Your task to perform on an android device: change alarm snooze length Image 0: 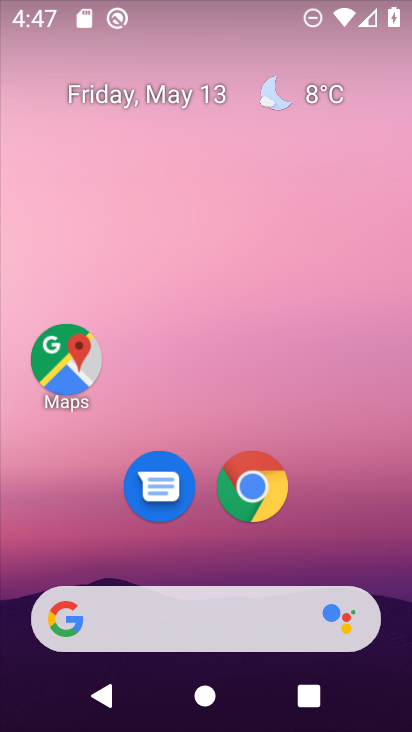
Step 0: drag from (386, 519) to (262, 185)
Your task to perform on an android device: change alarm snooze length Image 1: 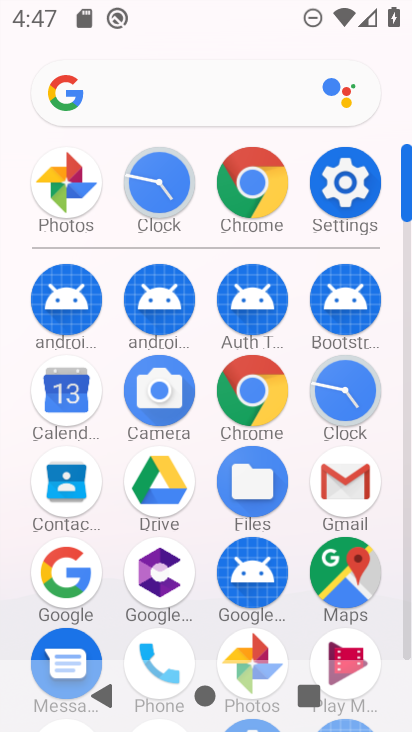
Step 1: click (346, 387)
Your task to perform on an android device: change alarm snooze length Image 2: 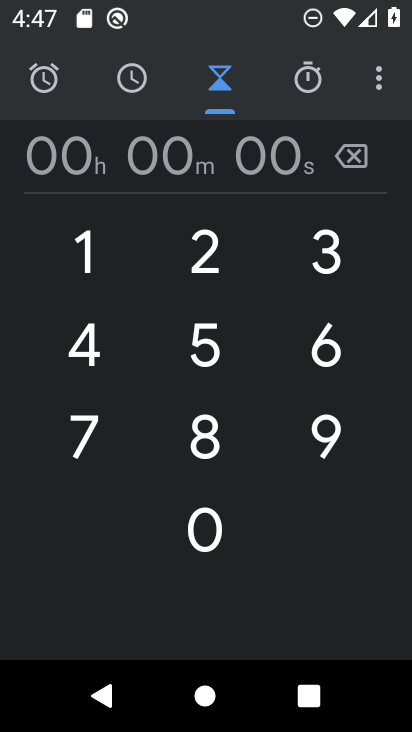
Step 2: click (394, 98)
Your task to perform on an android device: change alarm snooze length Image 3: 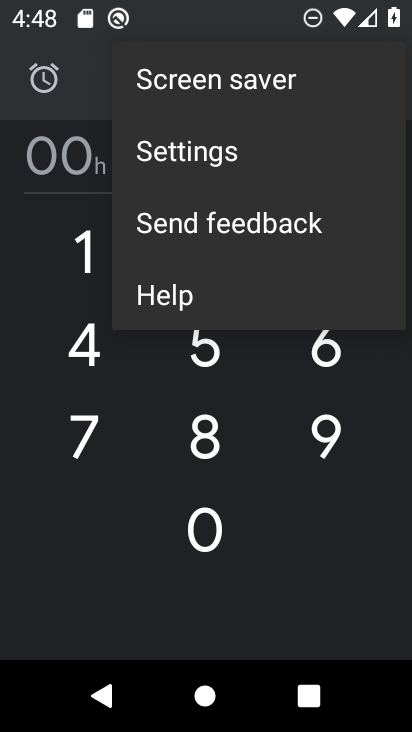
Step 3: click (331, 157)
Your task to perform on an android device: change alarm snooze length Image 4: 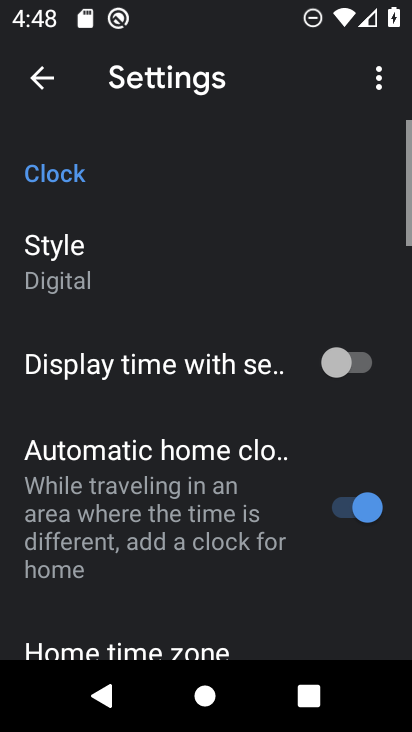
Step 4: drag from (298, 430) to (273, 178)
Your task to perform on an android device: change alarm snooze length Image 5: 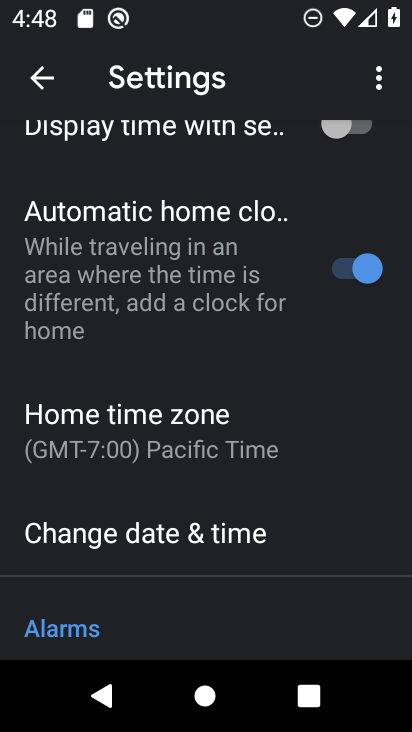
Step 5: drag from (283, 479) to (250, 189)
Your task to perform on an android device: change alarm snooze length Image 6: 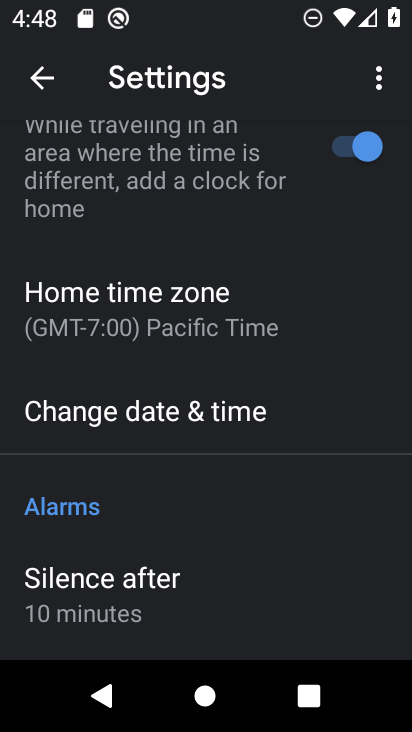
Step 6: drag from (216, 527) to (207, 299)
Your task to perform on an android device: change alarm snooze length Image 7: 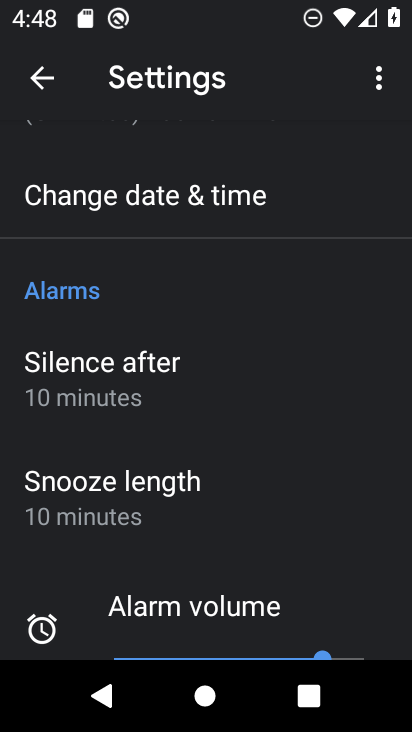
Step 7: click (200, 499)
Your task to perform on an android device: change alarm snooze length Image 8: 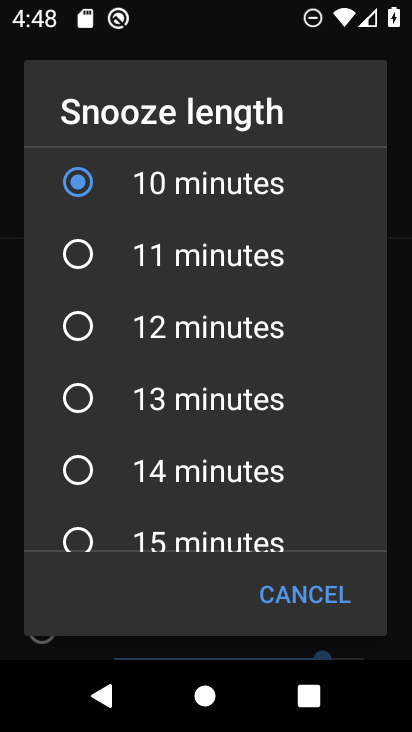
Step 8: click (221, 402)
Your task to perform on an android device: change alarm snooze length Image 9: 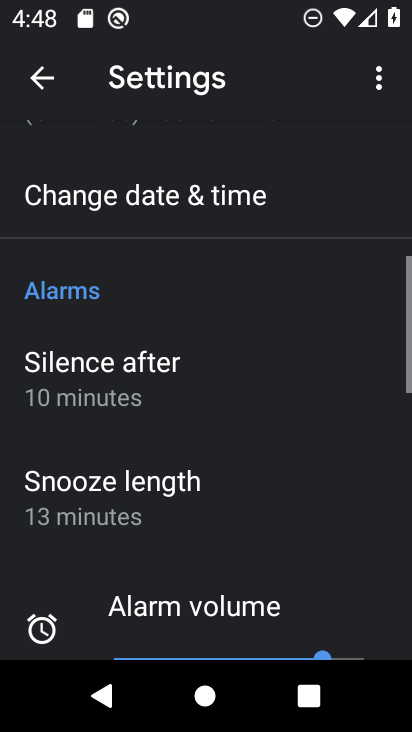
Step 9: task complete